Your task to perform on an android device: move a message to another label in the gmail app Image 0: 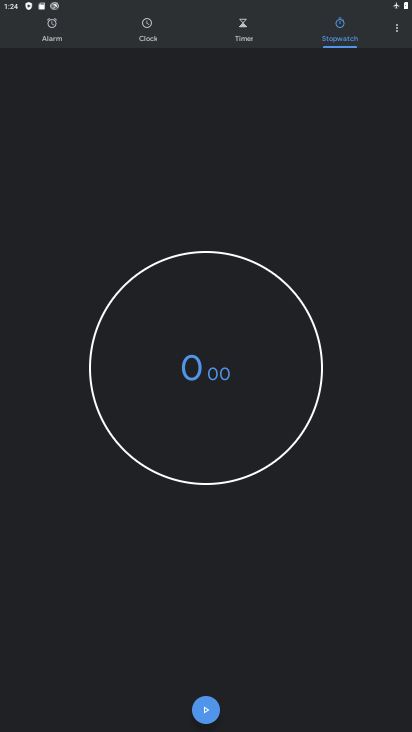
Step 0: press home button
Your task to perform on an android device: move a message to another label in the gmail app Image 1: 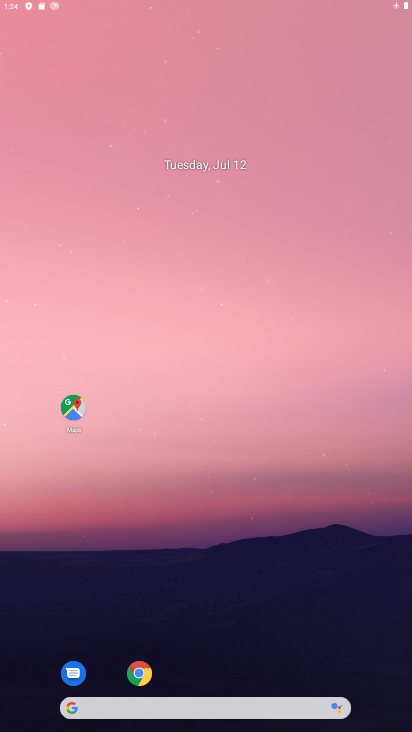
Step 1: drag from (204, 645) to (234, 292)
Your task to perform on an android device: move a message to another label in the gmail app Image 2: 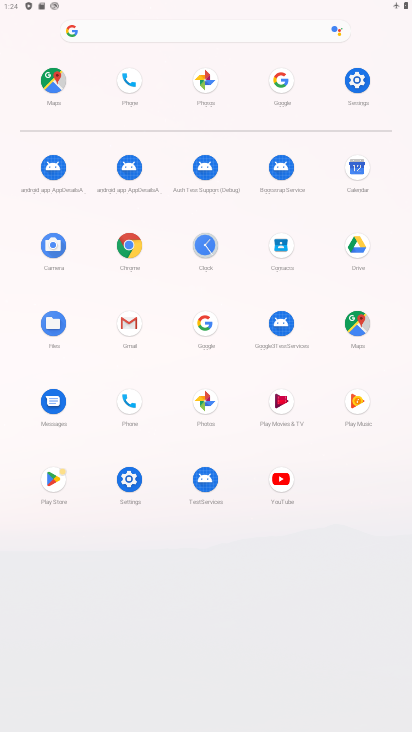
Step 2: click (122, 334)
Your task to perform on an android device: move a message to another label in the gmail app Image 3: 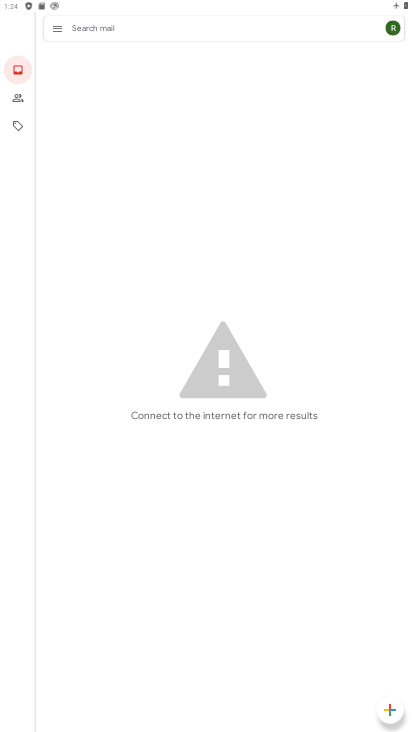
Step 3: click (47, 30)
Your task to perform on an android device: move a message to another label in the gmail app Image 4: 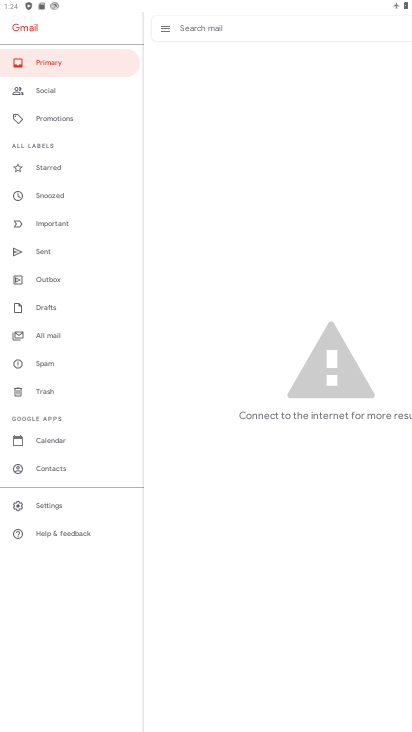
Step 4: task complete